Your task to perform on an android device: Play the last video I watched on Youtube Image 0: 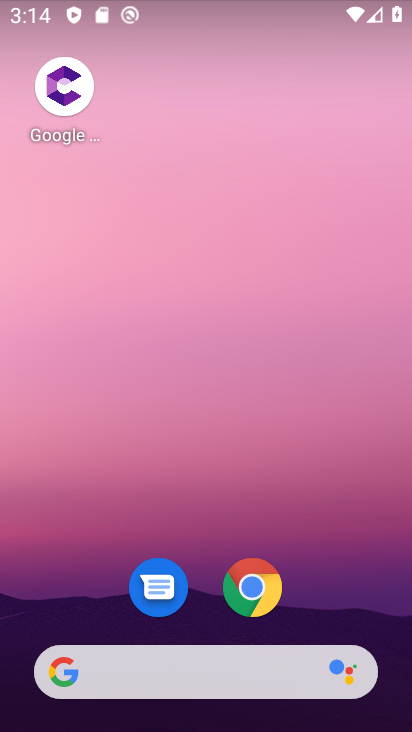
Step 0: drag from (310, 573) to (225, 66)
Your task to perform on an android device: Play the last video I watched on Youtube Image 1: 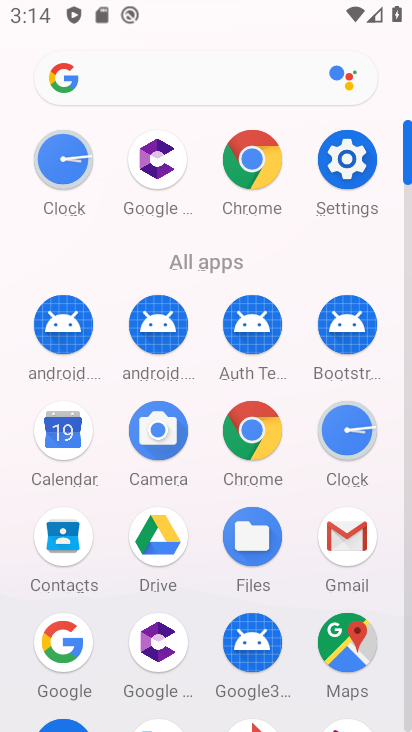
Step 1: drag from (7, 535) to (24, 251)
Your task to perform on an android device: Play the last video I watched on Youtube Image 2: 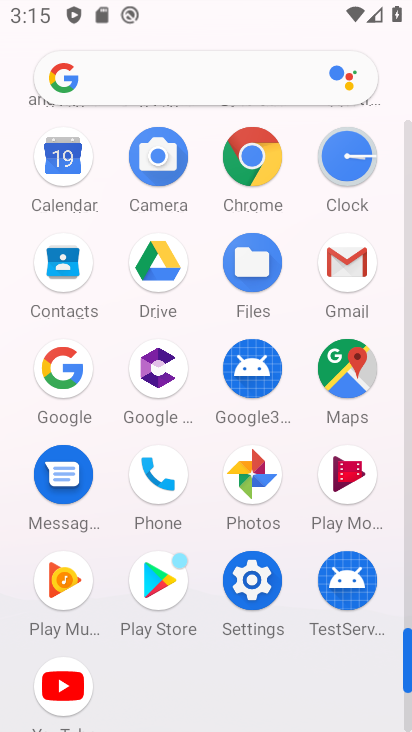
Step 2: drag from (17, 564) to (26, 269)
Your task to perform on an android device: Play the last video I watched on Youtube Image 3: 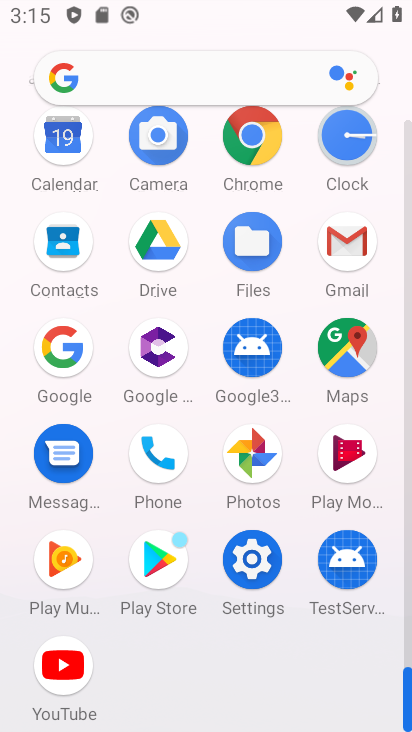
Step 3: click (58, 660)
Your task to perform on an android device: Play the last video I watched on Youtube Image 4: 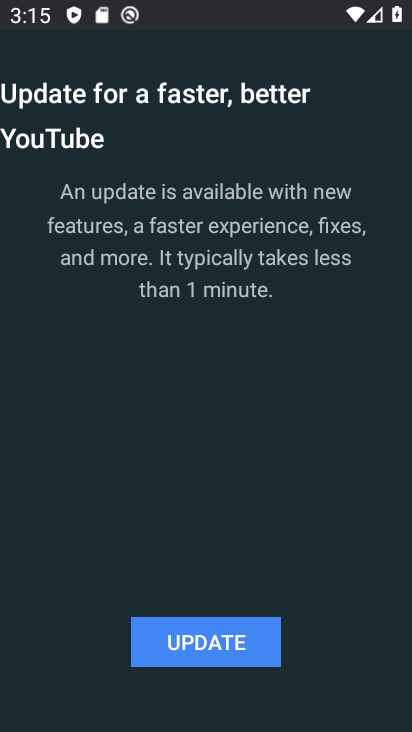
Step 4: click (227, 637)
Your task to perform on an android device: Play the last video I watched on Youtube Image 5: 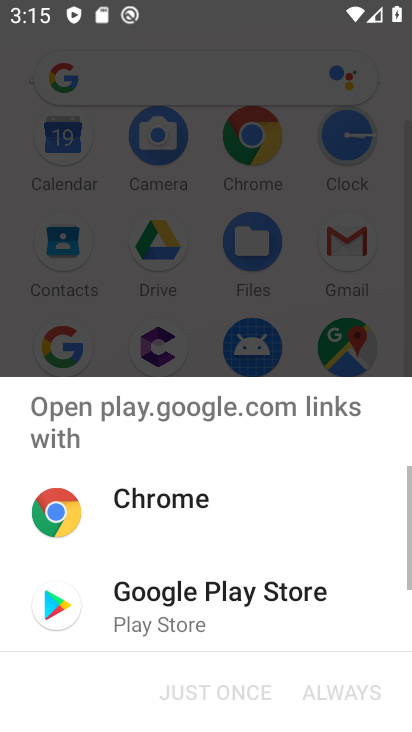
Step 5: click (187, 587)
Your task to perform on an android device: Play the last video I watched on Youtube Image 6: 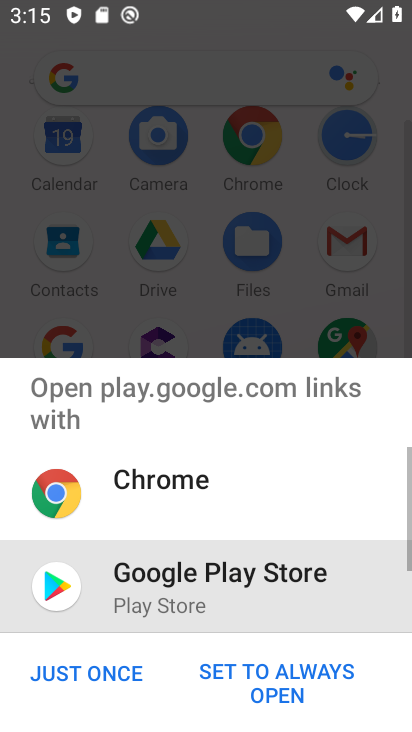
Step 6: click (84, 677)
Your task to perform on an android device: Play the last video I watched on Youtube Image 7: 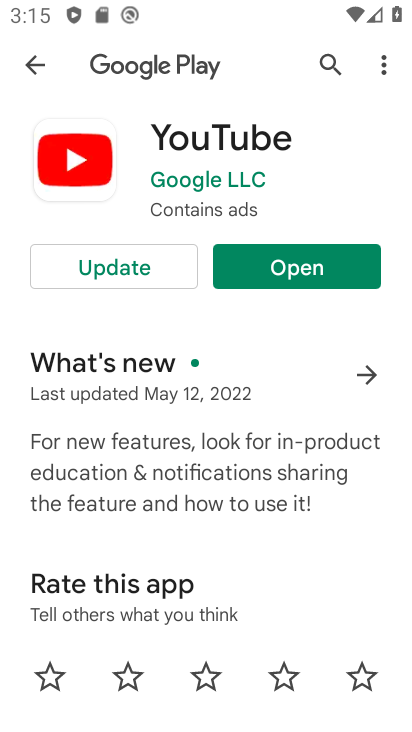
Step 7: click (143, 263)
Your task to perform on an android device: Play the last video I watched on Youtube Image 8: 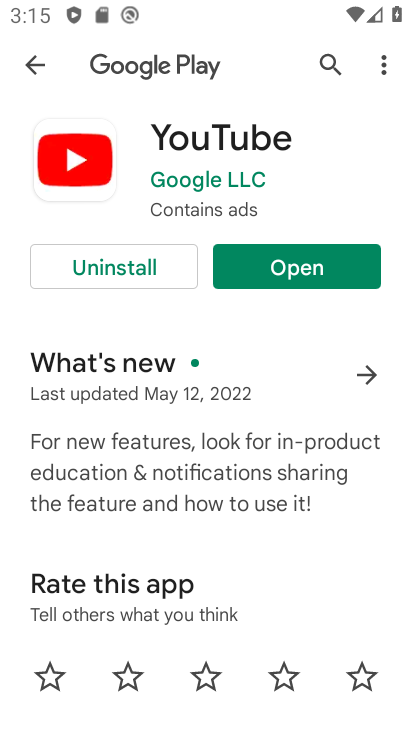
Step 8: click (294, 275)
Your task to perform on an android device: Play the last video I watched on Youtube Image 9: 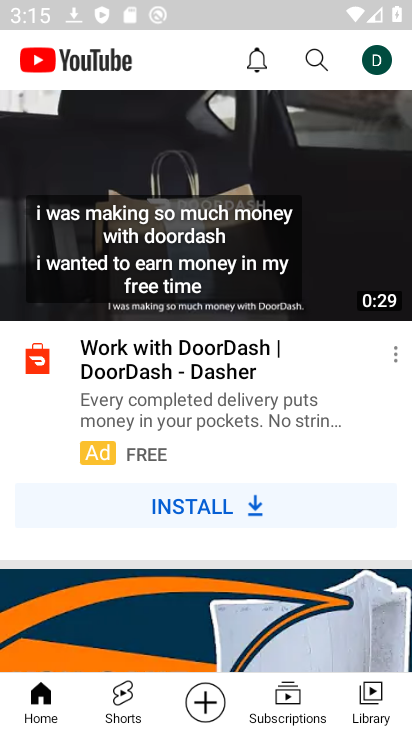
Step 9: click (394, 701)
Your task to perform on an android device: Play the last video I watched on Youtube Image 10: 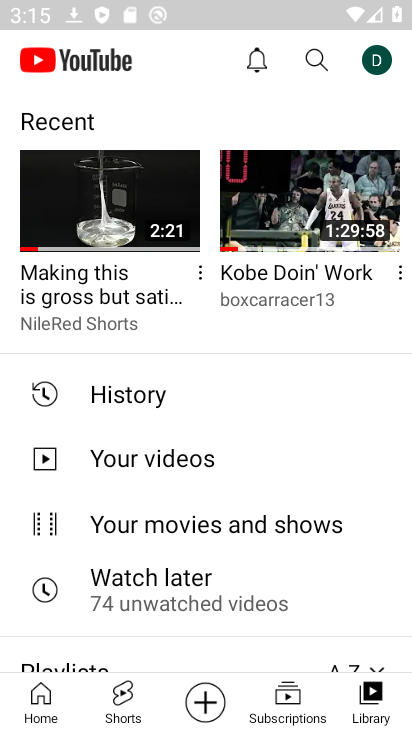
Step 10: click (77, 189)
Your task to perform on an android device: Play the last video I watched on Youtube Image 11: 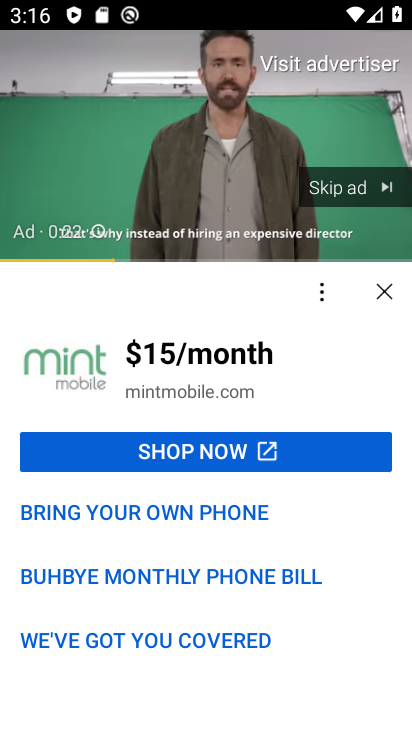
Step 11: click (304, 188)
Your task to perform on an android device: Play the last video I watched on Youtube Image 12: 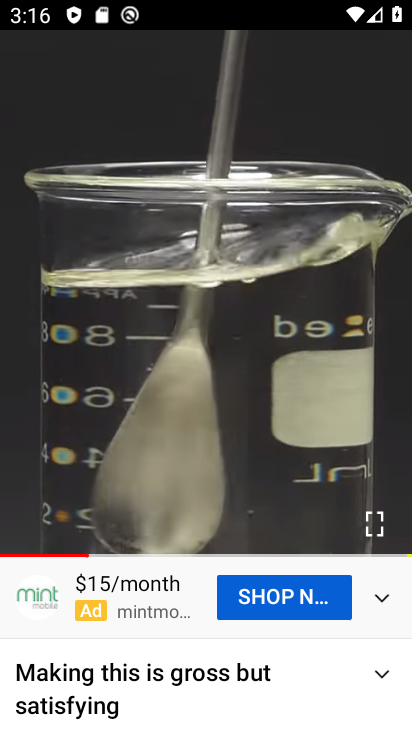
Step 12: task complete